Your task to perform on an android device: Open settings Image 0: 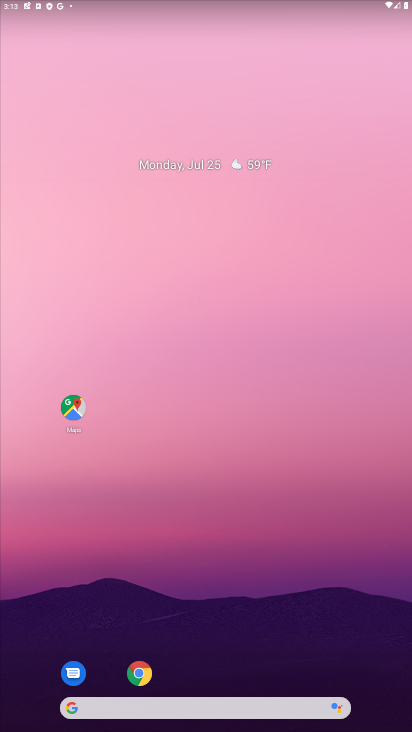
Step 0: drag from (208, 682) to (241, 79)
Your task to perform on an android device: Open settings Image 1: 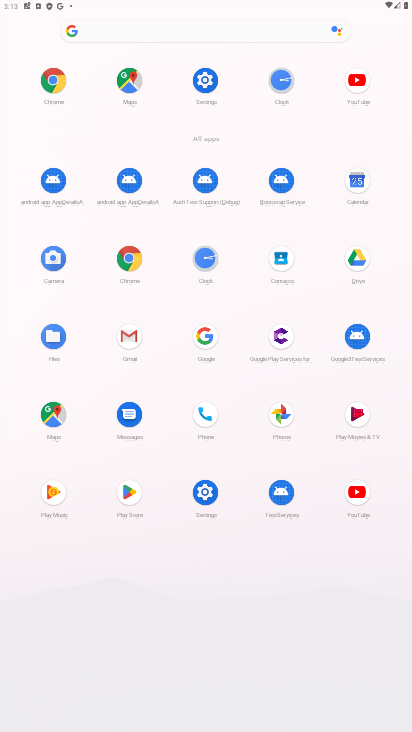
Step 1: click (214, 77)
Your task to perform on an android device: Open settings Image 2: 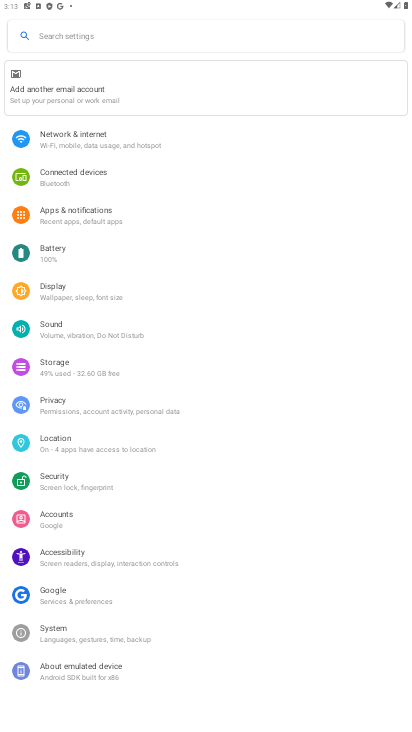
Step 2: task complete